Your task to perform on an android device: Open Google Maps and go to "Timeline" Image 0: 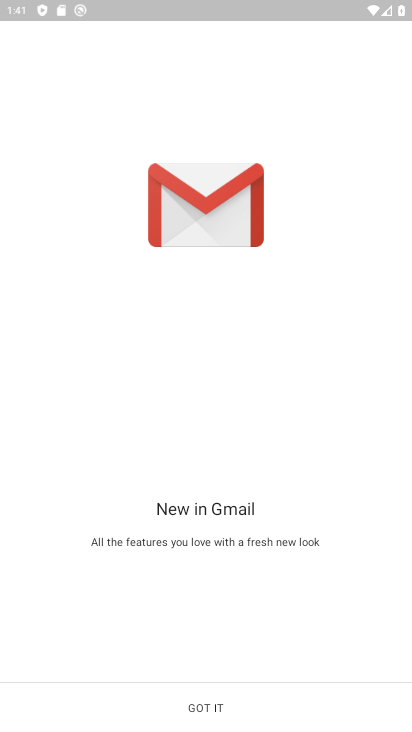
Step 0: press home button
Your task to perform on an android device: Open Google Maps and go to "Timeline" Image 1: 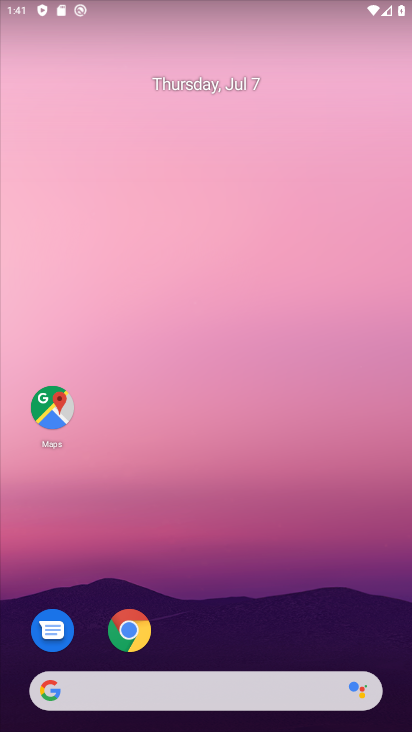
Step 1: drag from (196, 559) to (222, 52)
Your task to perform on an android device: Open Google Maps and go to "Timeline" Image 2: 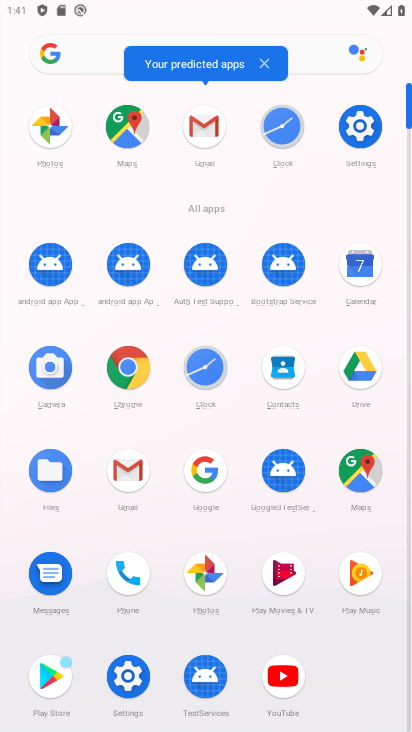
Step 2: click (360, 461)
Your task to perform on an android device: Open Google Maps and go to "Timeline" Image 3: 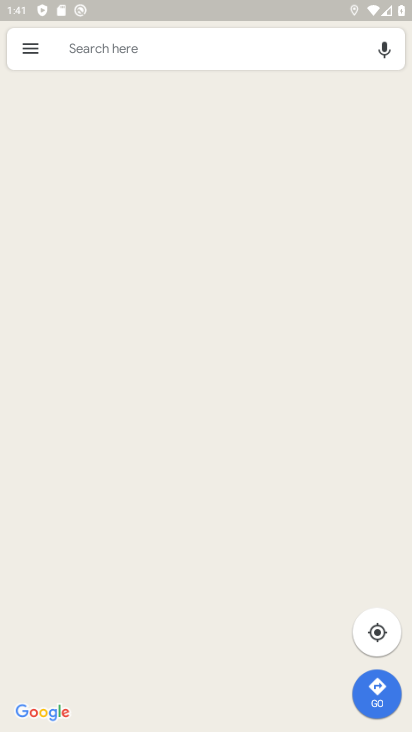
Step 3: click (28, 43)
Your task to perform on an android device: Open Google Maps and go to "Timeline" Image 4: 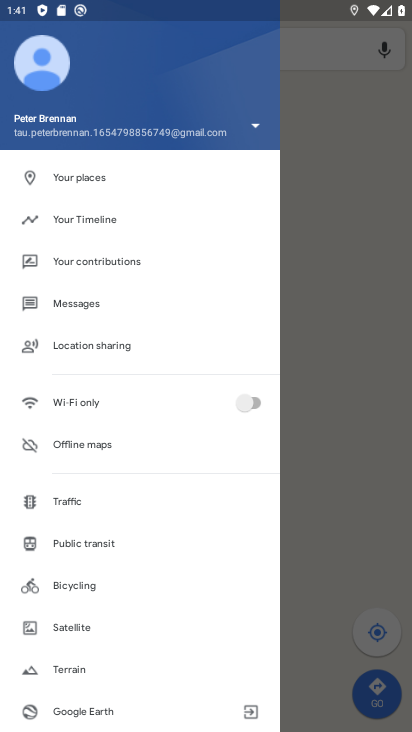
Step 4: click (82, 227)
Your task to perform on an android device: Open Google Maps and go to "Timeline" Image 5: 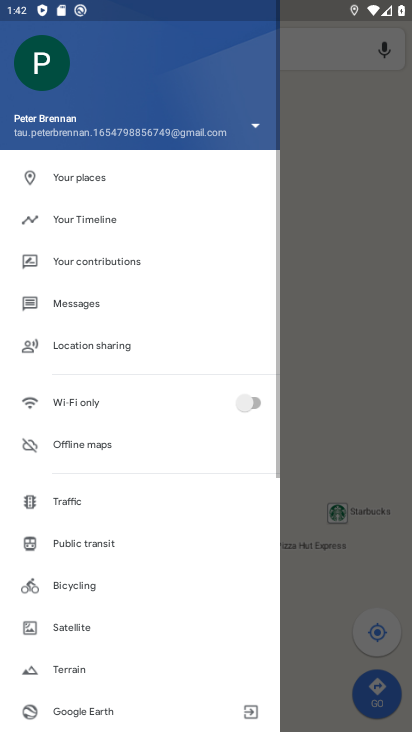
Step 5: click (93, 214)
Your task to perform on an android device: Open Google Maps and go to "Timeline" Image 6: 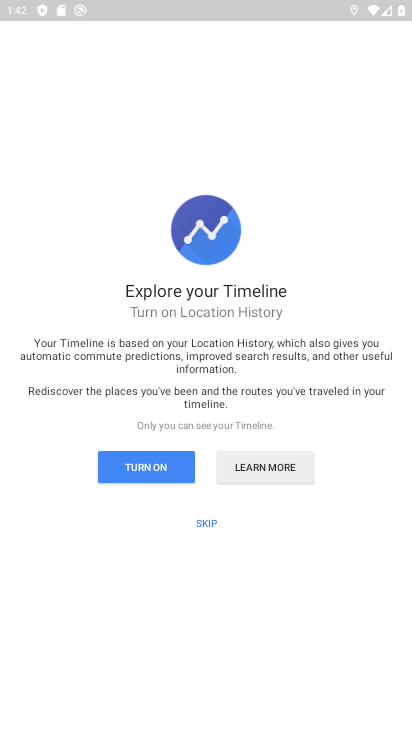
Step 6: click (202, 524)
Your task to perform on an android device: Open Google Maps and go to "Timeline" Image 7: 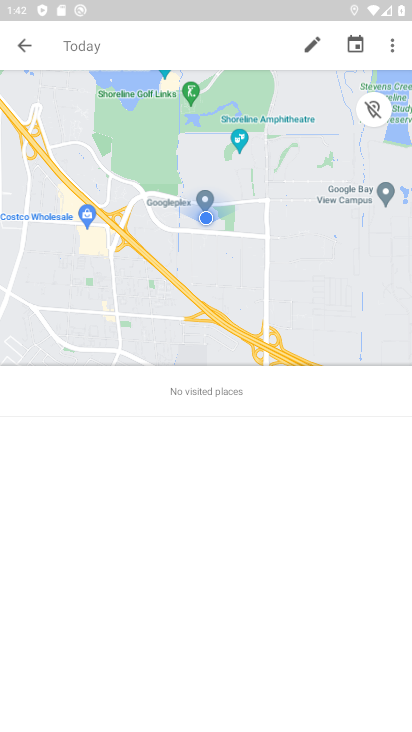
Step 7: task complete